Your task to perform on an android device: What's the price of the 2x4x8 boards at Home Depot? Image 0: 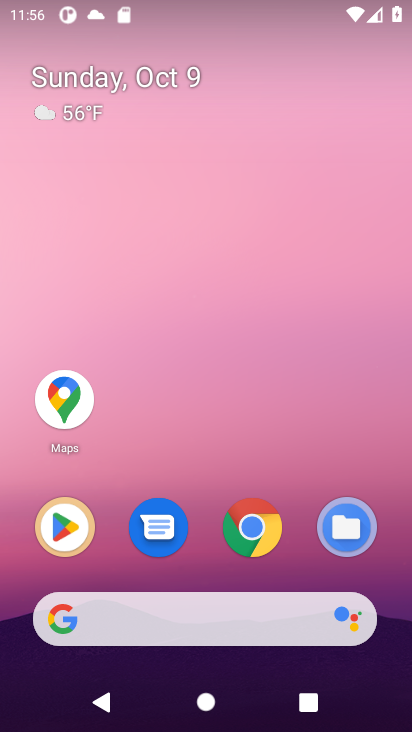
Step 0: click (250, 528)
Your task to perform on an android device: What's the price of the 2x4x8 boards at Home Depot? Image 1: 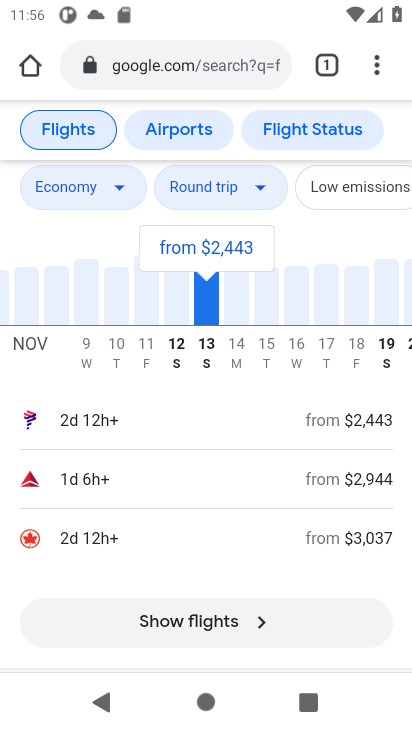
Step 1: click (230, 57)
Your task to perform on an android device: What's the price of the 2x4x8 boards at Home Depot? Image 2: 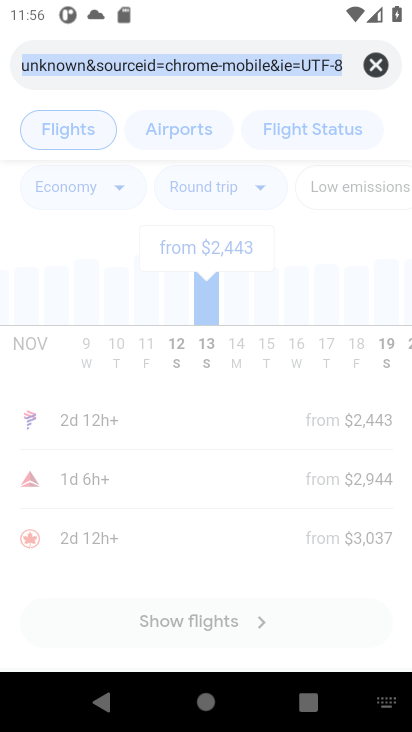
Step 2: click (376, 63)
Your task to perform on an android device: What's the price of the 2x4x8 boards at Home Depot? Image 3: 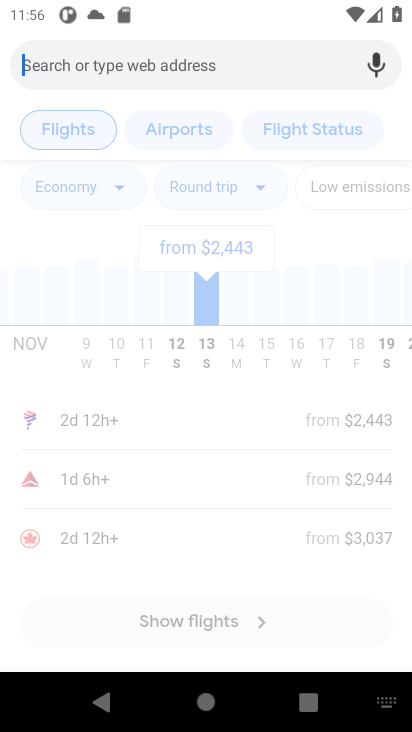
Step 3: type "What's the price of the 2x4x8 boards at Home Depot?"
Your task to perform on an android device: What's the price of the 2x4x8 boards at Home Depot? Image 4: 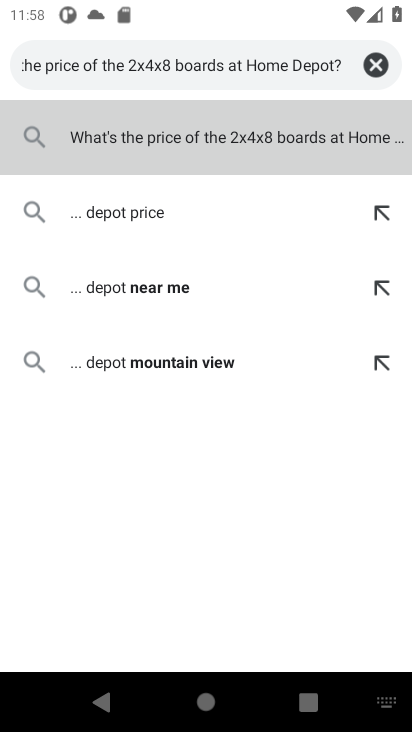
Step 4: click (279, 138)
Your task to perform on an android device: What's the price of the 2x4x8 boards at Home Depot? Image 5: 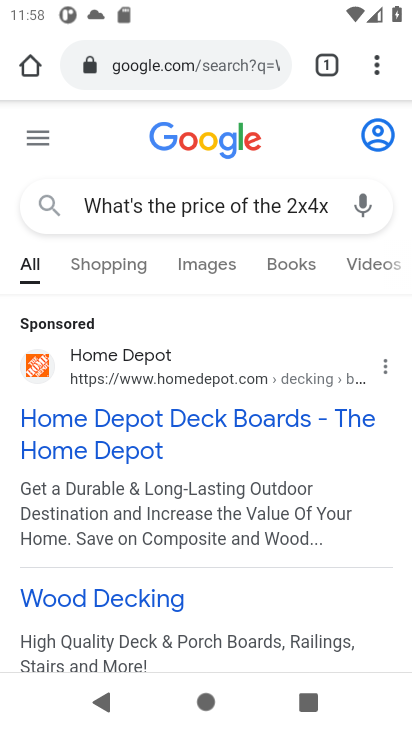
Step 5: click (66, 462)
Your task to perform on an android device: What's the price of the 2x4x8 boards at Home Depot? Image 6: 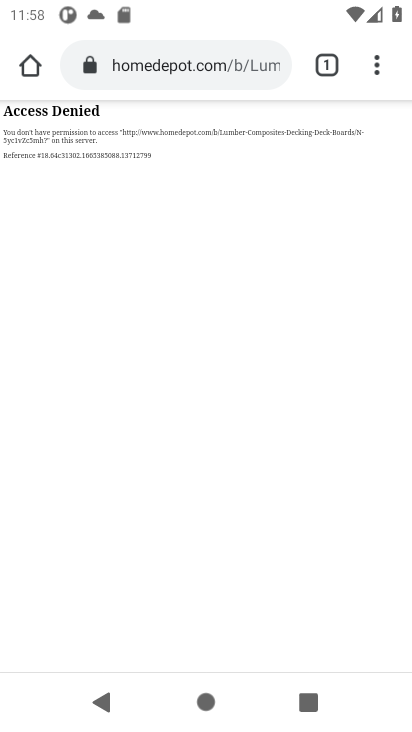
Step 6: press back button
Your task to perform on an android device: What's the price of the 2x4x8 boards at Home Depot? Image 7: 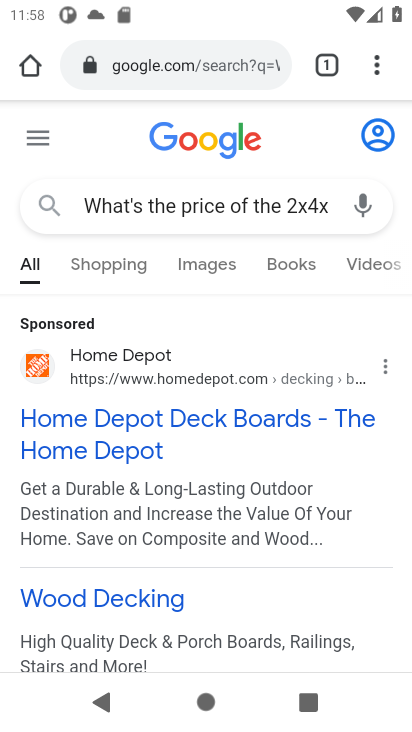
Step 7: drag from (162, 464) to (177, 232)
Your task to perform on an android device: What's the price of the 2x4x8 boards at Home Depot? Image 8: 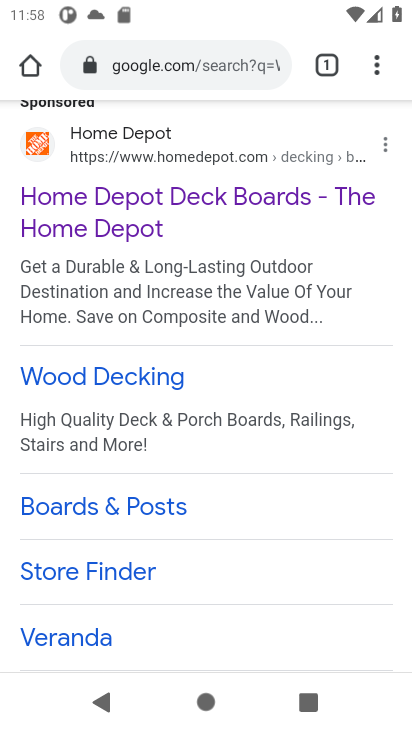
Step 8: drag from (236, 558) to (224, 296)
Your task to perform on an android device: What's the price of the 2x4x8 boards at Home Depot? Image 9: 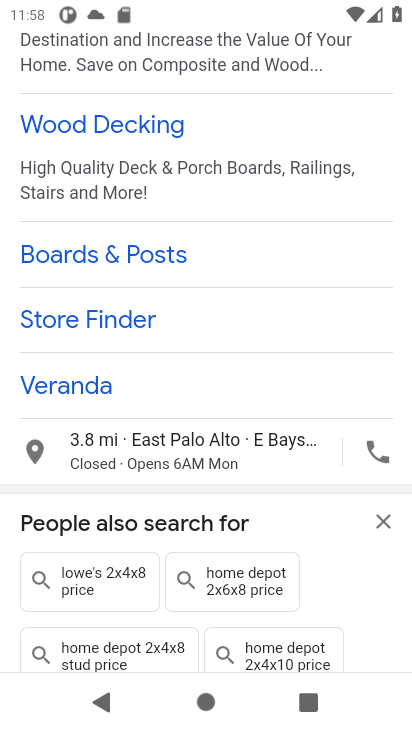
Step 9: drag from (218, 555) to (215, 251)
Your task to perform on an android device: What's the price of the 2x4x8 boards at Home Depot? Image 10: 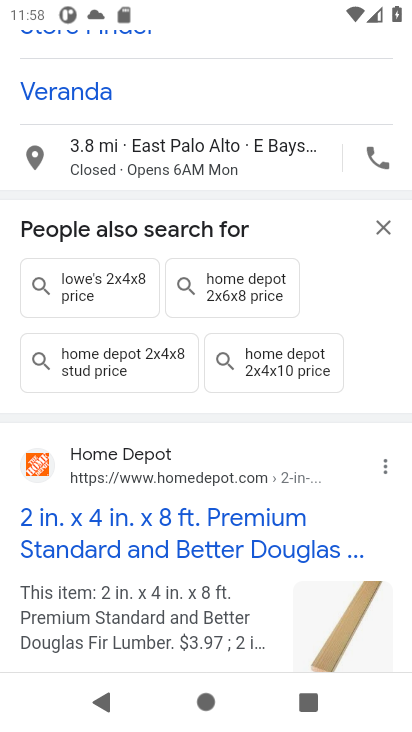
Step 10: click (131, 546)
Your task to perform on an android device: What's the price of the 2x4x8 boards at Home Depot? Image 11: 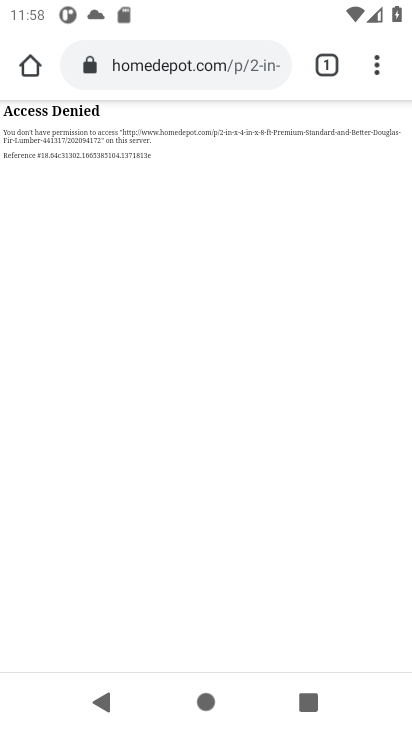
Step 11: press back button
Your task to perform on an android device: What's the price of the 2x4x8 boards at Home Depot? Image 12: 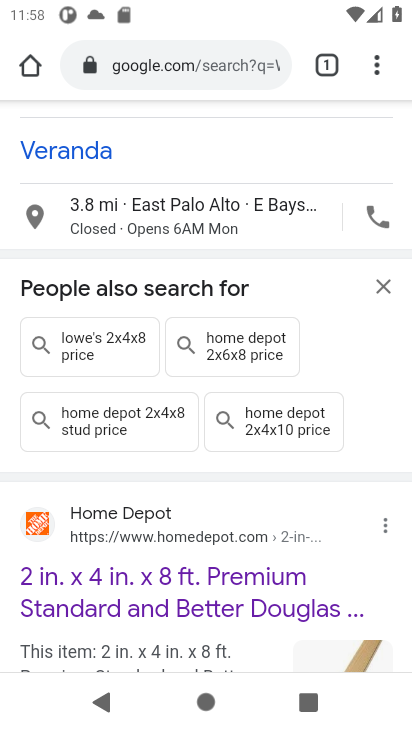
Step 12: drag from (194, 456) to (204, 264)
Your task to perform on an android device: What's the price of the 2x4x8 boards at Home Depot? Image 13: 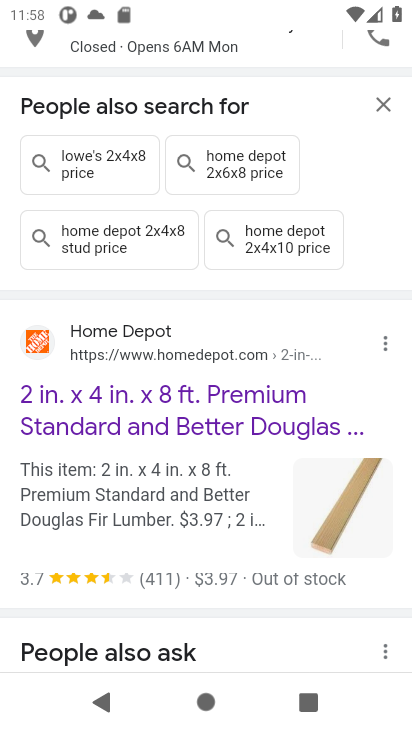
Step 13: drag from (182, 546) to (201, 337)
Your task to perform on an android device: What's the price of the 2x4x8 boards at Home Depot? Image 14: 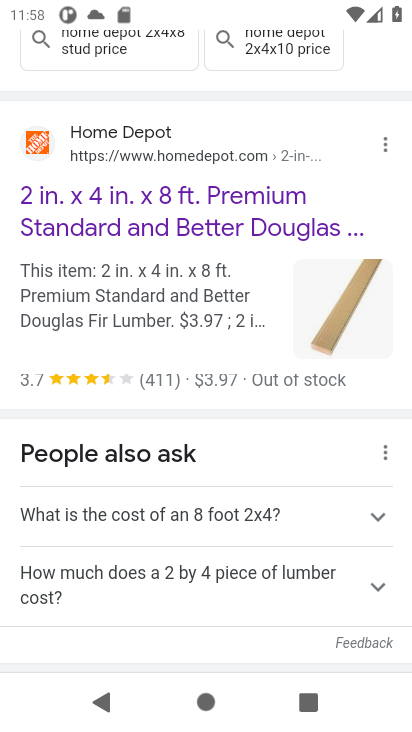
Step 14: drag from (210, 520) to (225, 285)
Your task to perform on an android device: What's the price of the 2x4x8 boards at Home Depot? Image 15: 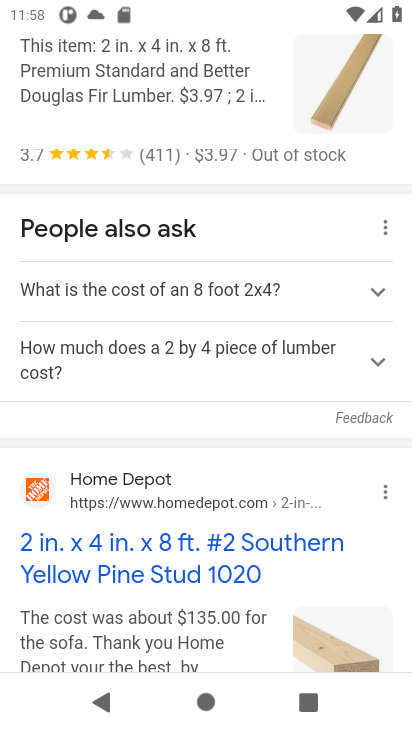
Step 15: drag from (217, 538) to (219, 292)
Your task to perform on an android device: What's the price of the 2x4x8 boards at Home Depot? Image 16: 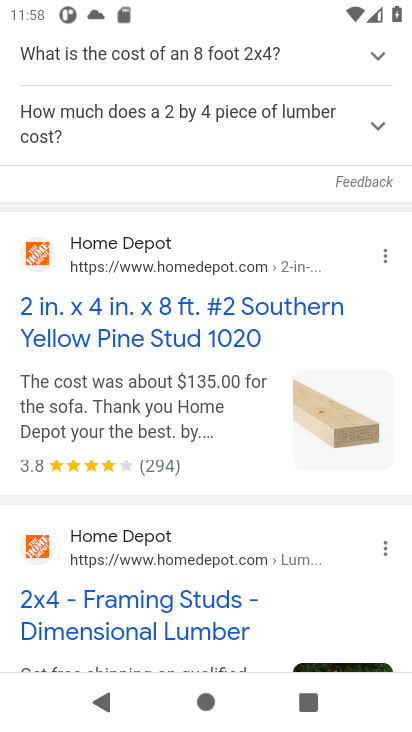
Step 16: click (139, 397)
Your task to perform on an android device: What's the price of the 2x4x8 boards at Home Depot? Image 17: 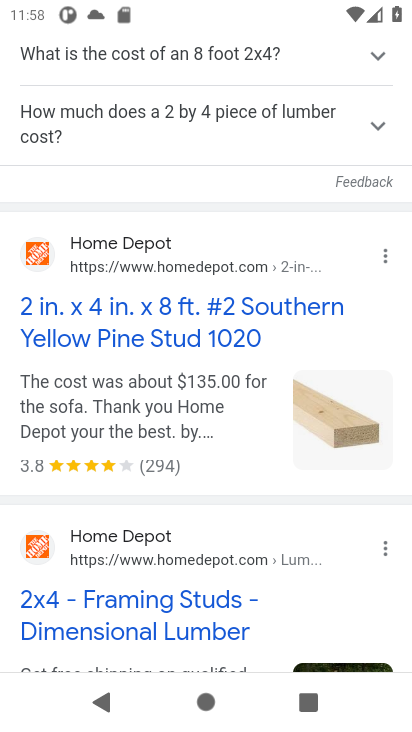
Step 17: click (136, 332)
Your task to perform on an android device: What's the price of the 2x4x8 boards at Home Depot? Image 18: 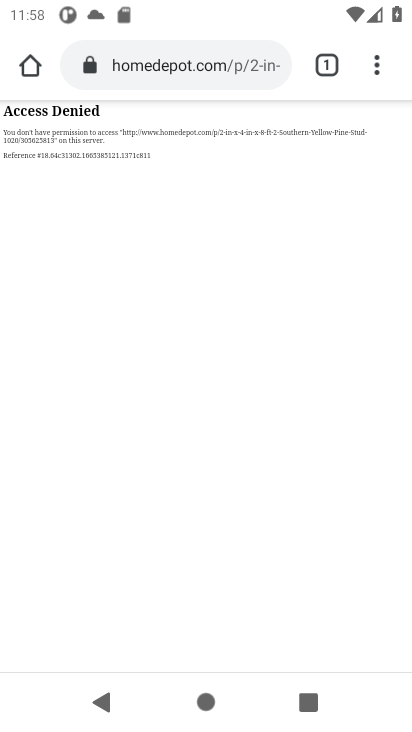
Step 18: task complete